Your task to perform on an android device: set the timer Image 0: 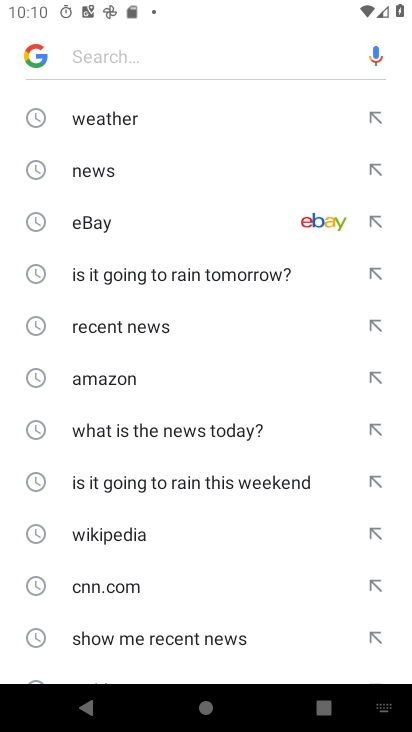
Step 0: press home button
Your task to perform on an android device: set the timer Image 1: 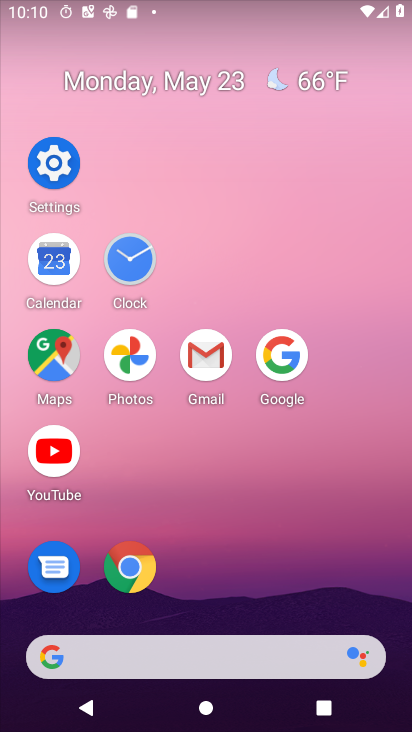
Step 1: click (142, 267)
Your task to perform on an android device: set the timer Image 2: 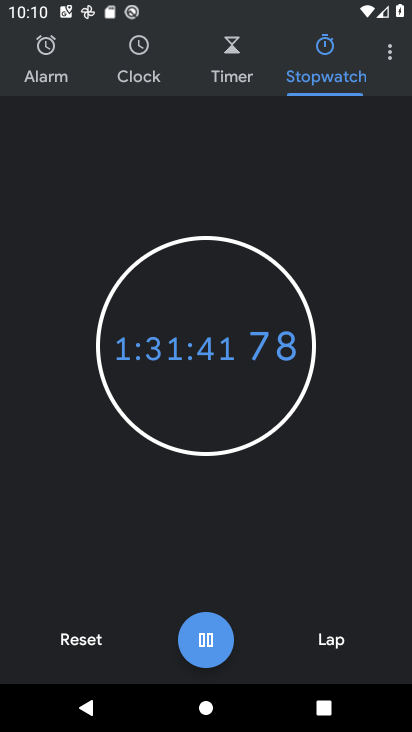
Step 2: click (231, 55)
Your task to perform on an android device: set the timer Image 3: 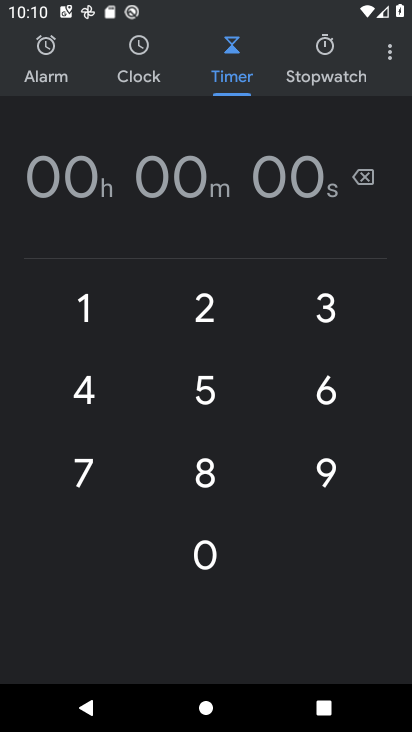
Step 3: click (215, 298)
Your task to perform on an android device: set the timer Image 4: 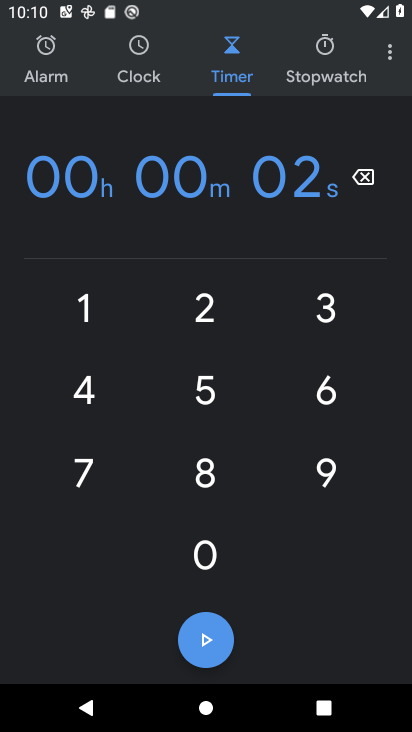
Step 4: click (215, 298)
Your task to perform on an android device: set the timer Image 5: 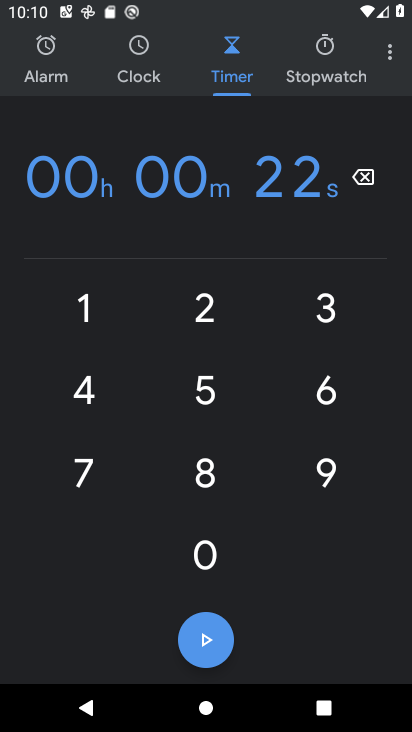
Step 5: click (214, 638)
Your task to perform on an android device: set the timer Image 6: 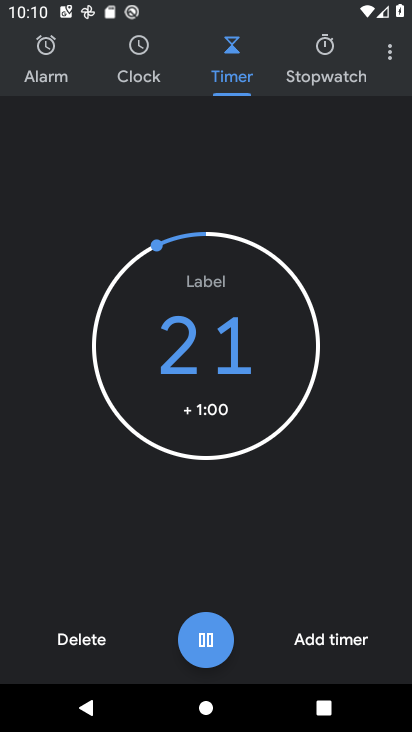
Step 6: task complete